Your task to perform on an android device: Search for Italian restaurants on Maps Image 0: 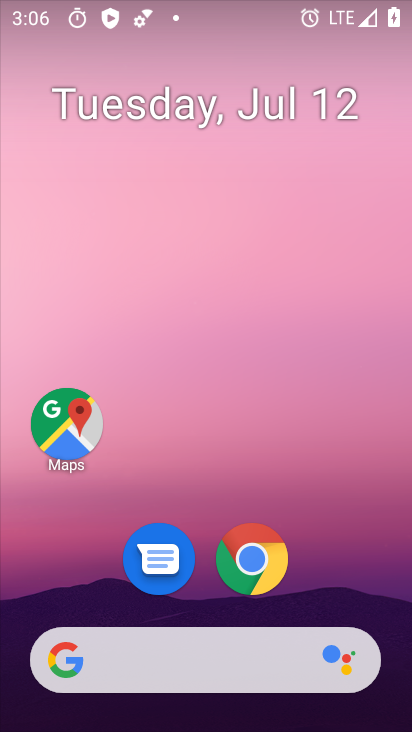
Step 0: drag from (364, 575) to (363, 125)
Your task to perform on an android device: Search for Italian restaurants on Maps Image 1: 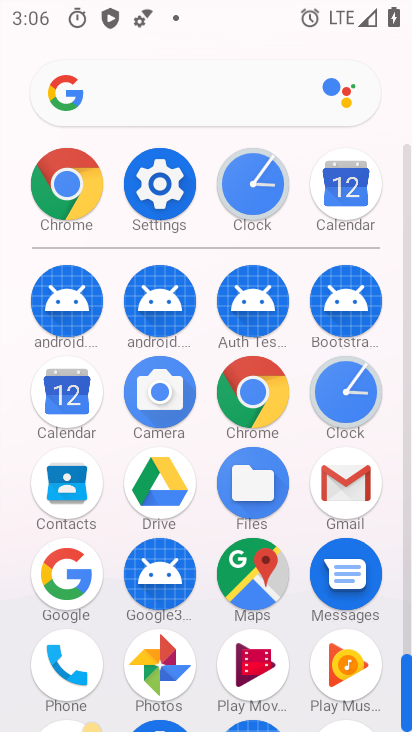
Step 1: click (258, 562)
Your task to perform on an android device: Search for Italian restaurants on Maps Image 2: 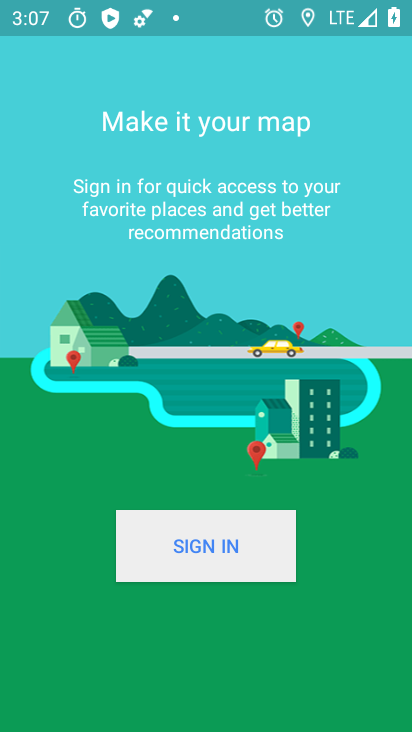
Step 2: task complete